Your task to perform on an android device: Go to Google maps Image 0: 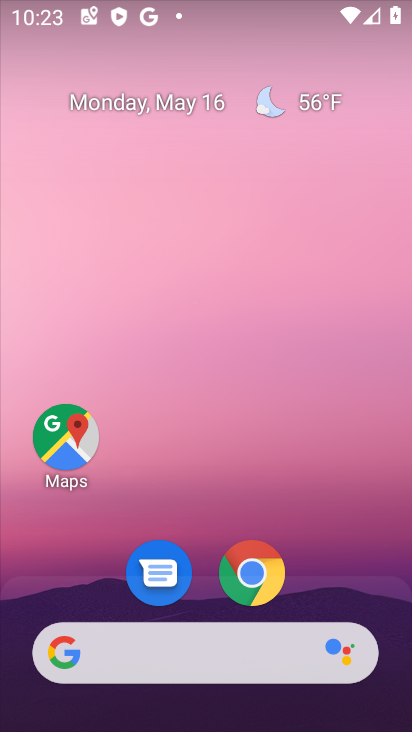
Step 0: click (79, 436)
Your task to perform on an android device: Go to Google maps Image 1: 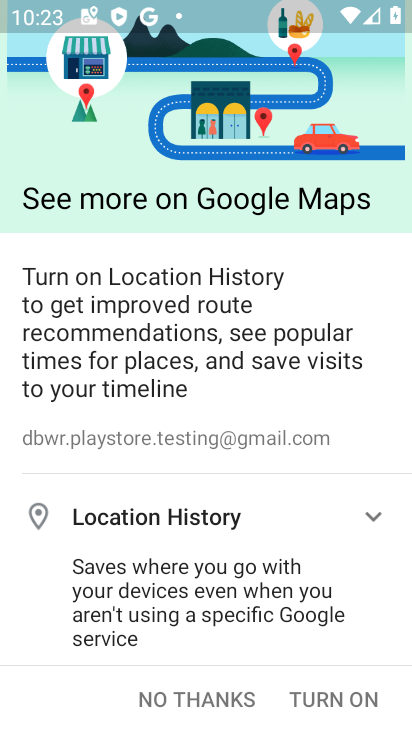
Step 1: click (308, 698)
Your task to perform on an android device: Go to Google maps Image 2: 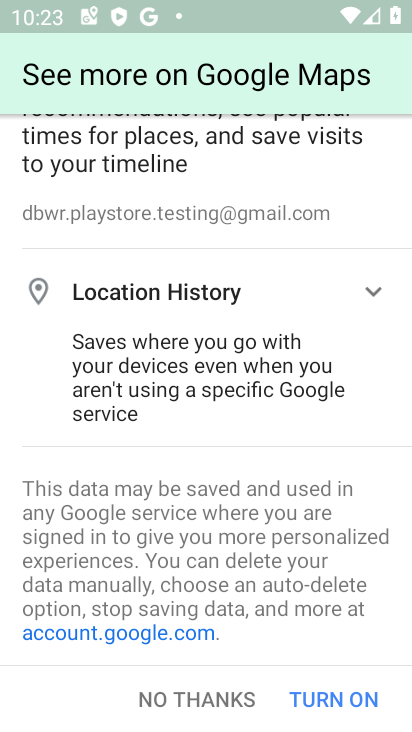
Step 2: click (308, 698)
Your task to perform on an android device: Go to Google maps Image 3: 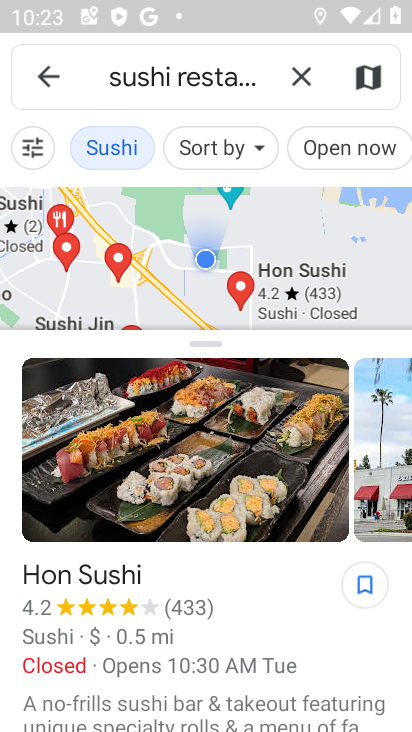
Step 3: click (43, 72)
Your task to perform on an android device: Go to Google maps Image 4: 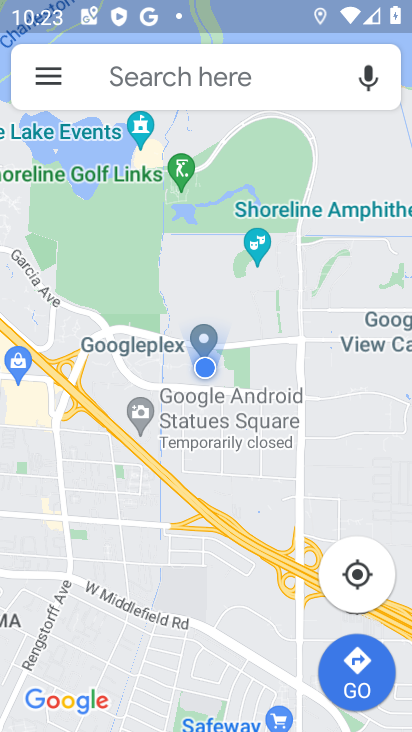
Step 4: task complete